Your task to perform on an android device: check battery use Image 0: 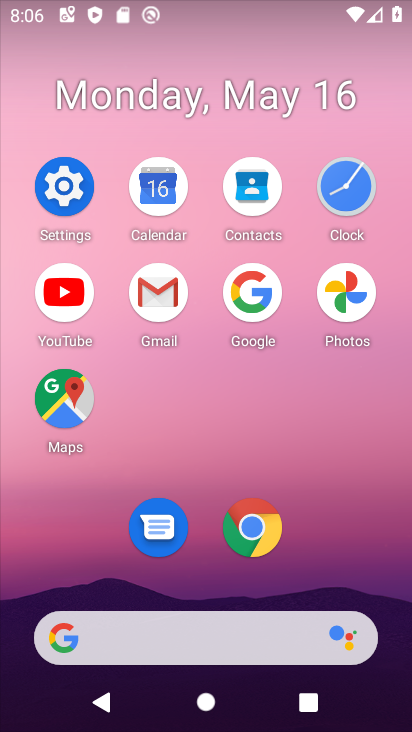
Step 0: click (34, 179)
Your task to perform on an android device: check battery use Image 1: 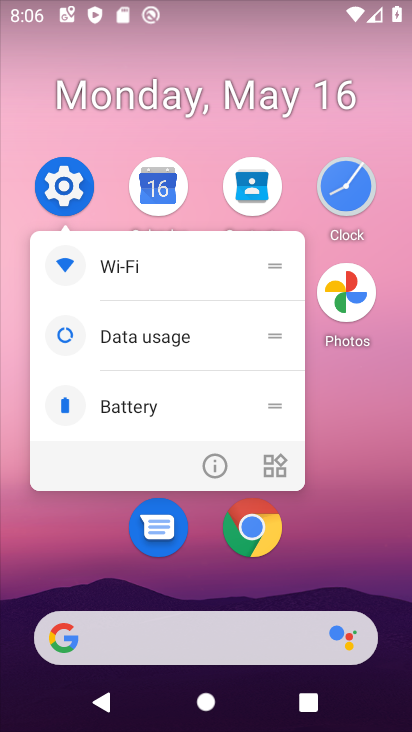
Step 1: click (27, 209)
Your task to perform on an android device: check battery use Image 2: 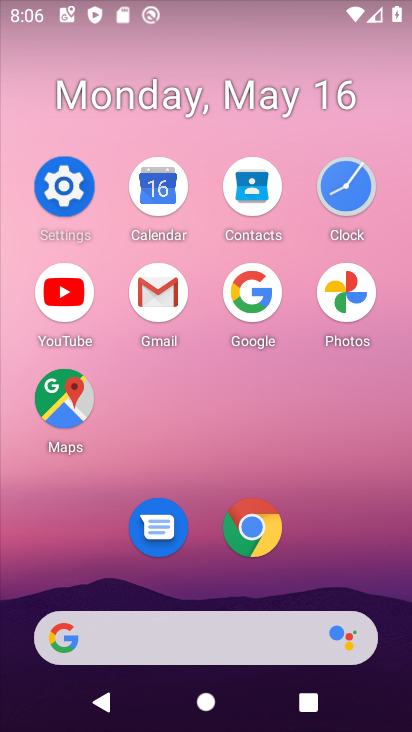
Step 2: click (59, 188)
Your task to perform on an android device: check battery use Image 3: 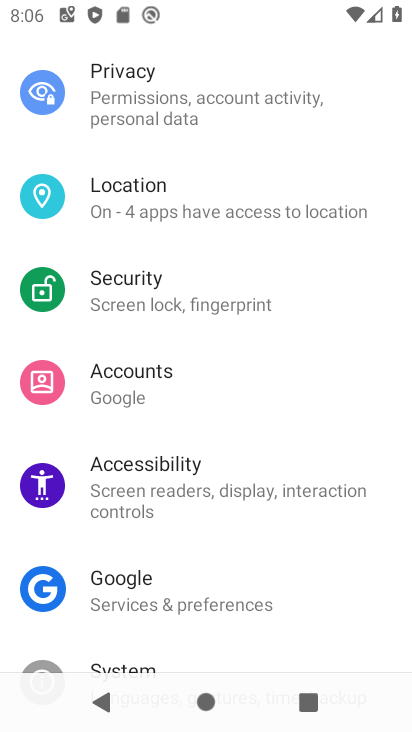
Step 3: drag from (217, 245) to (184, 655)
Your task to perform on an android device: check battery use Image 4: 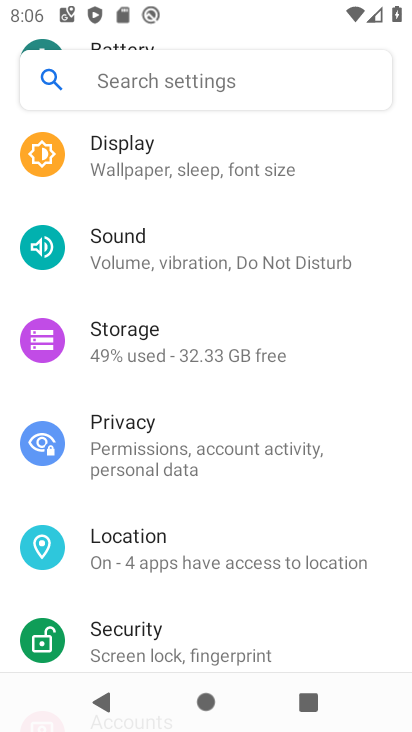
Step 4: drag from (276, 202) to (308, 667)
Your task to perform on an android device: check battery use Image 5: 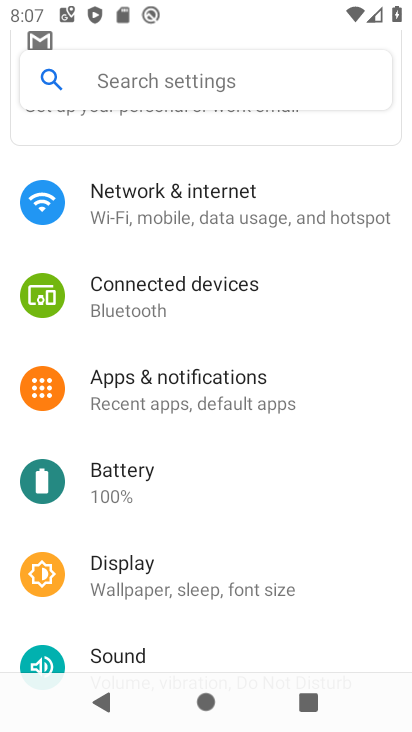
Step 5: click (125, 459)
Your task to perform on an android device: check battery use Image 6: 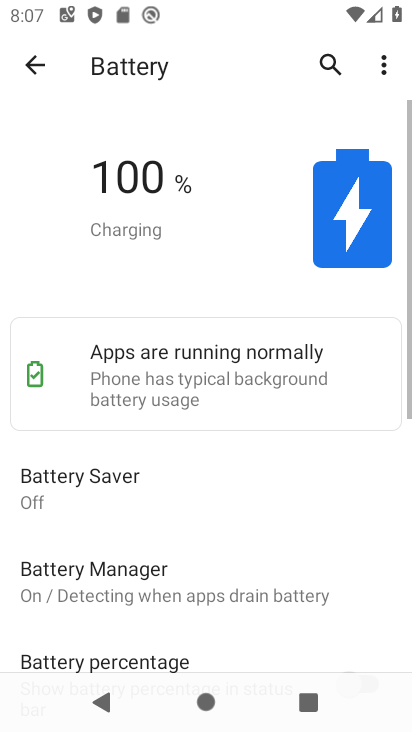
Step 6: click (382, 67)
Your task to perform on an android device: check battery use Image 7: 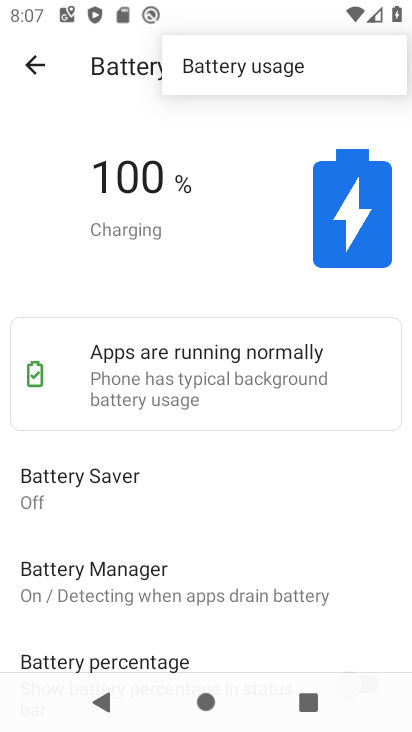
Step 7: click (321, 62)
Your task to perform on an android device: check battery use Image 8: 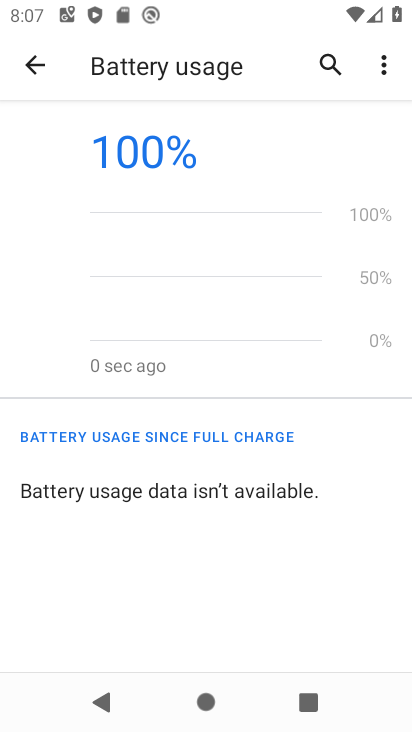
Step 8: task complete